Your task to perform on an android device: Open the stopwatch Image 0: 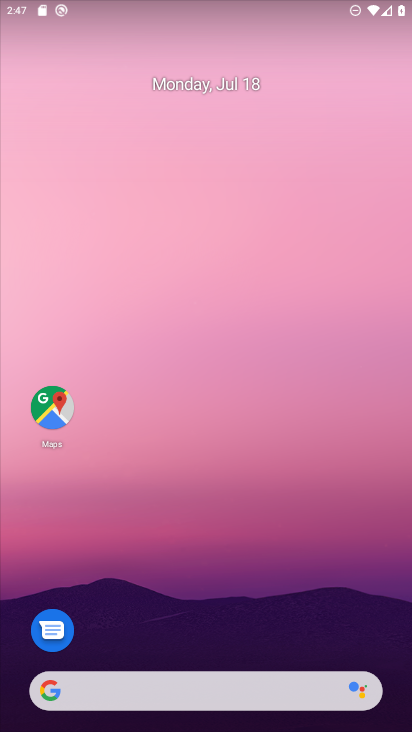
Step 0: drag from (221, 648) to (294, 177)
Your task to perform on an android device: Open the stopwatch Image 1: 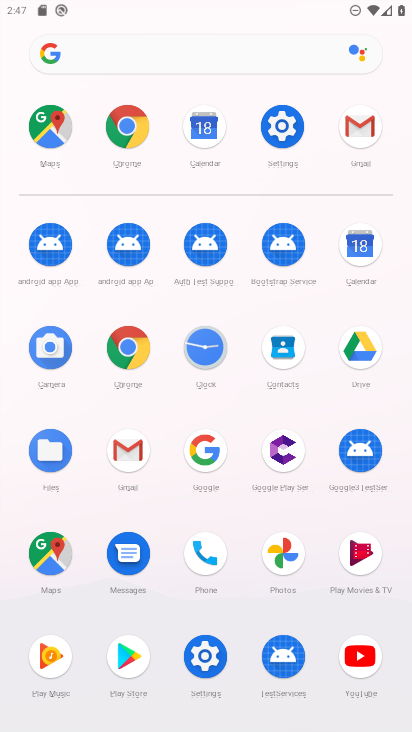
Step 1: click (204, 358)
Your task to perform on an android device: Open the stopwatch Image 2: 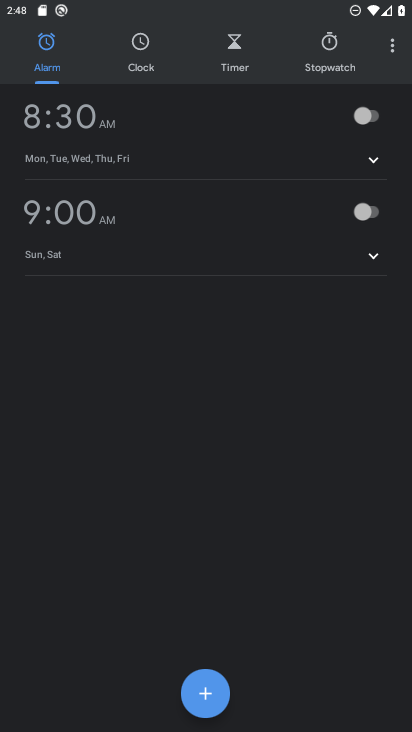
Step 2: task complete